Your task to perform on an android device: Open eBay Image 0: 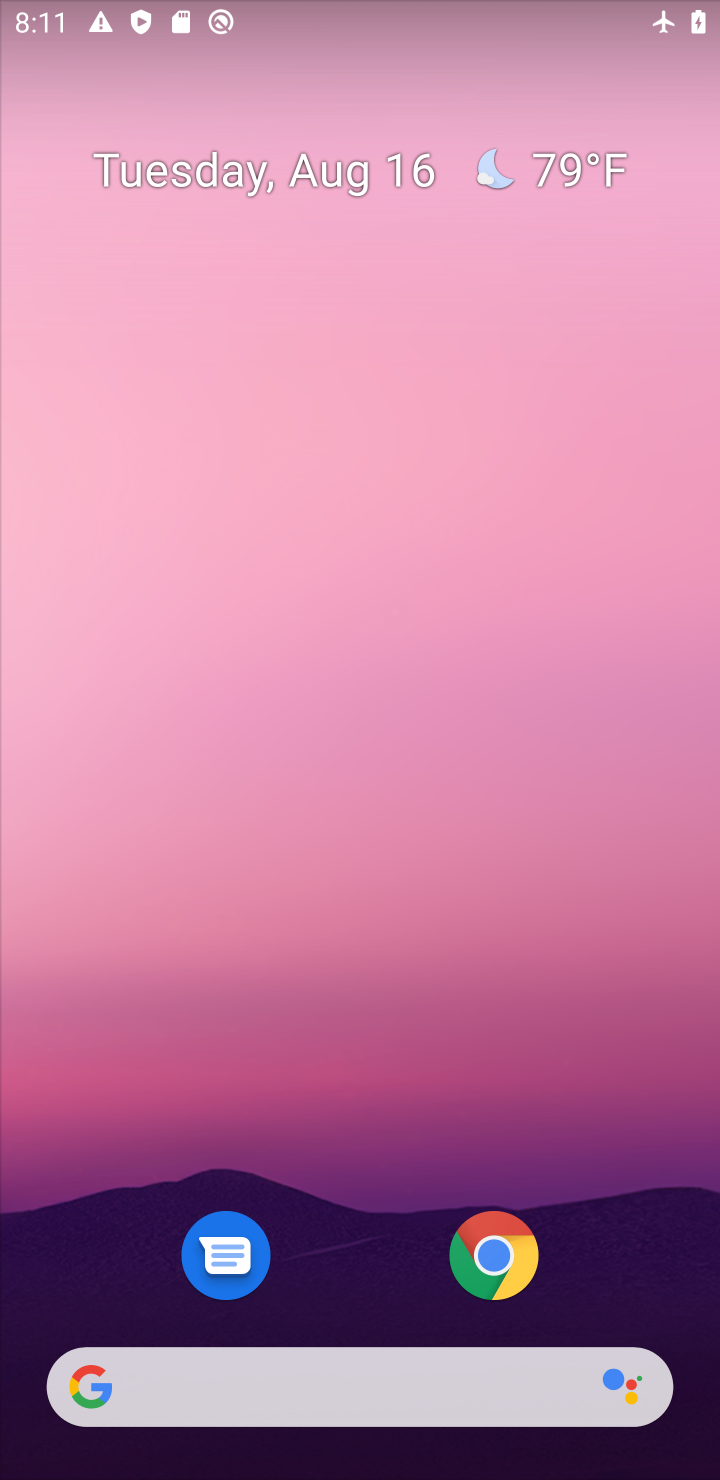
Step 0: click (469, 1253)
Your task to perform on an android device: Open eBay Image 1: 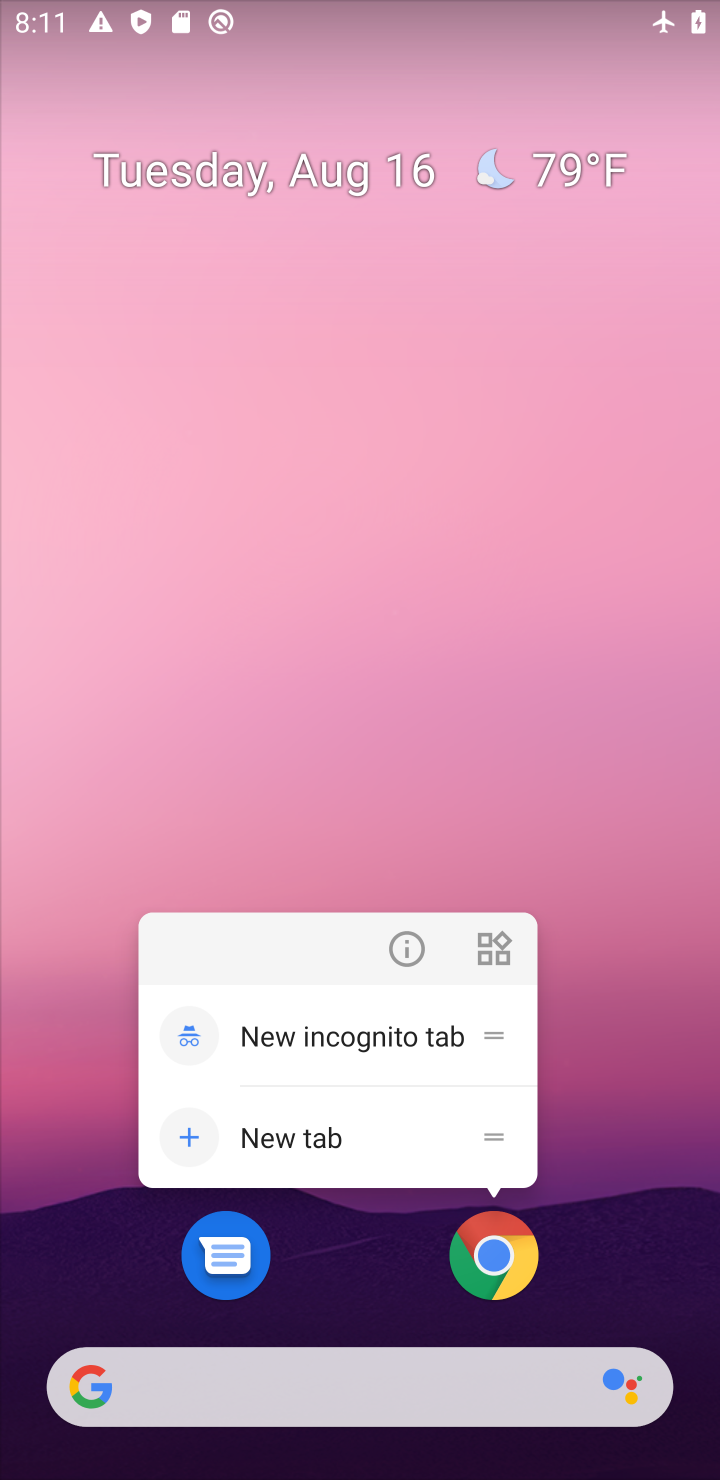
Step 1: click (469, 1253)
Your task to perform on an android device: Open eBay Image 2: 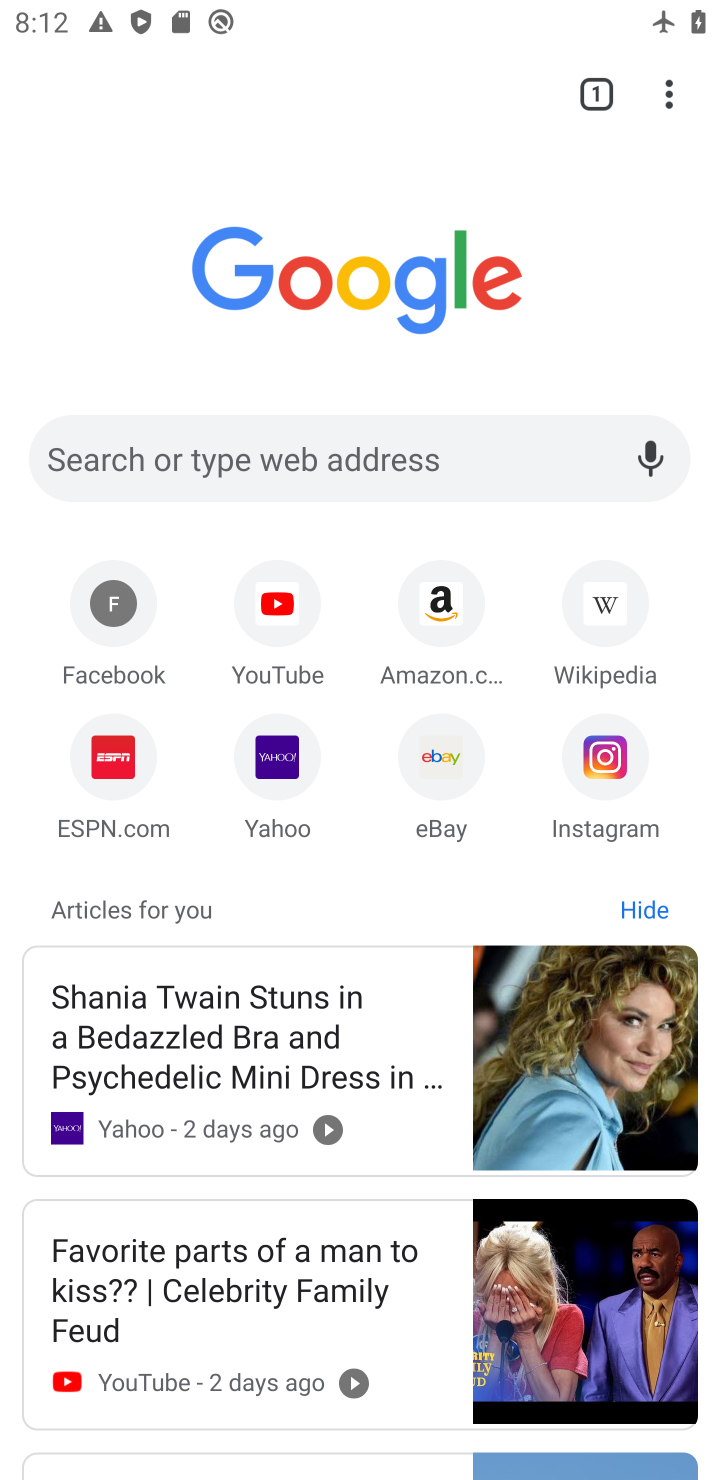
Step 2: click (447, 756)
Your task to perform on an android device: Open eBay Image 3: 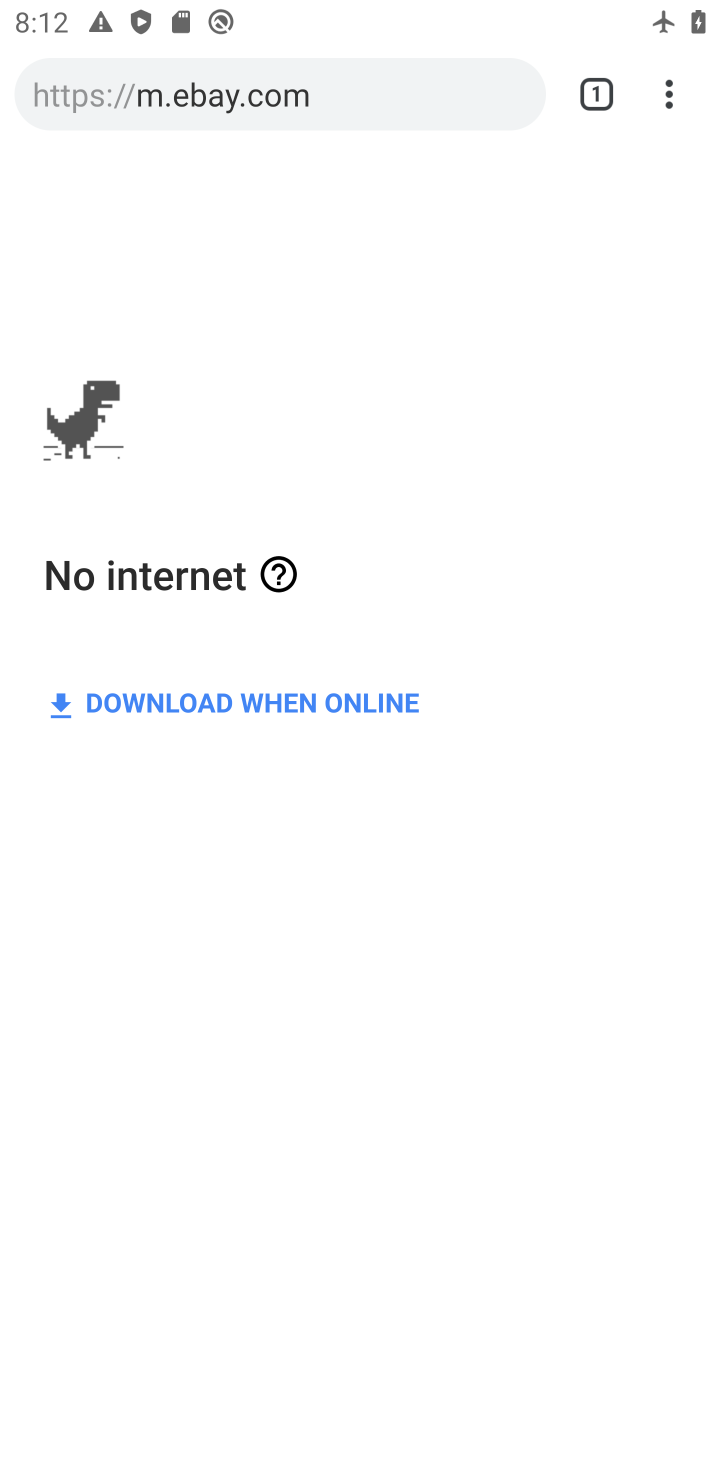
Step 3: task complete